Your task to perform on an android device: Open Chrome and go to settings Image 0: 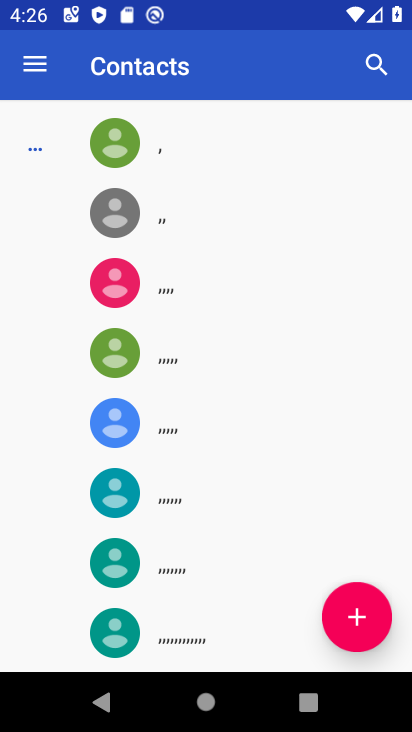
Step 0: press home button
Your task to perform on an android device: Open Chrome and go to settings Image 1: 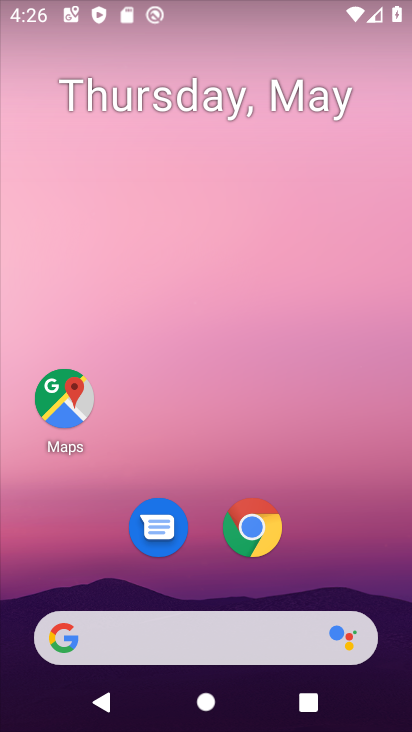
Step 1: click (245, 535)
Your task to perform on an android device: Open Chrome and go to settings Image 2: 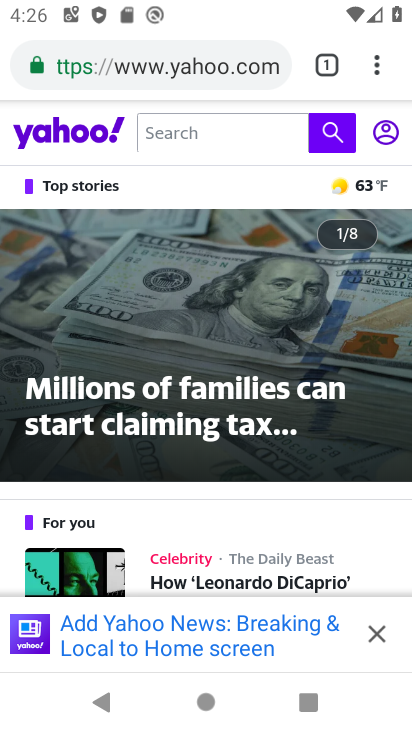
Step 2: task complete